Your task to perform on an android device: Go to Yahoo.com Image 0: 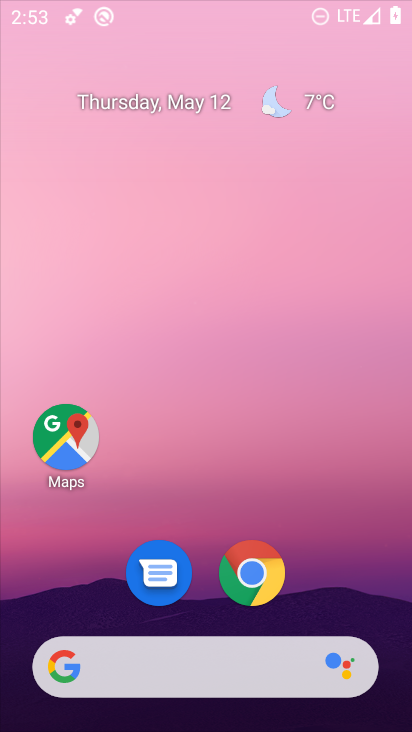
Step 0: drag from (261, 98) to (408, 121)
Your task to perform on an android device: Go to Yahoo.com Image 1: 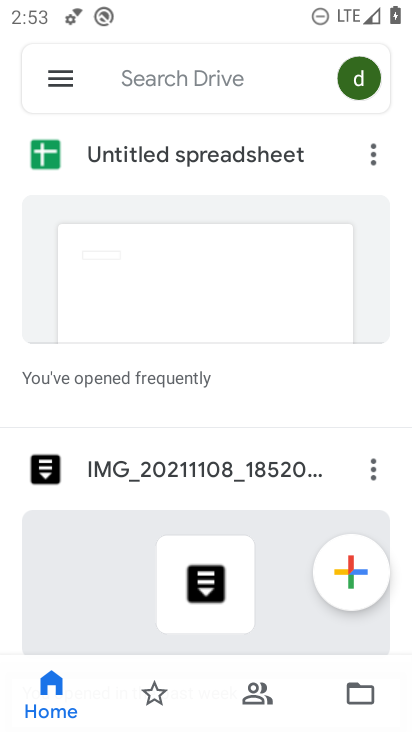
Step 1: press back button
Your task to perform on an android device: Go to Yahoo.com Image 2: 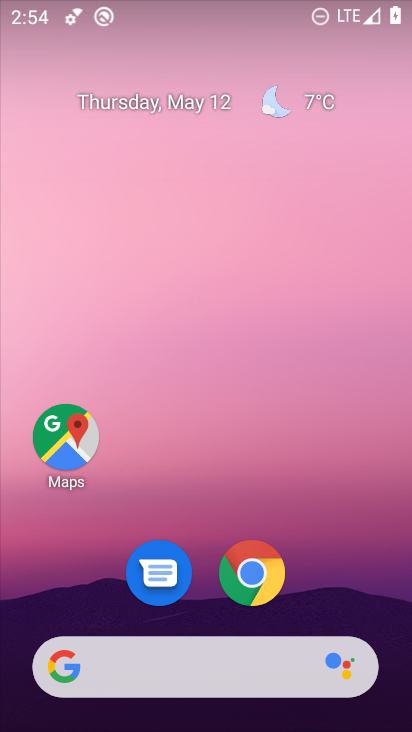
Step 2: drag from (352, 565) to (206, 55)
Your task to perform on an android device: Go to Yahoo.com Image 3: 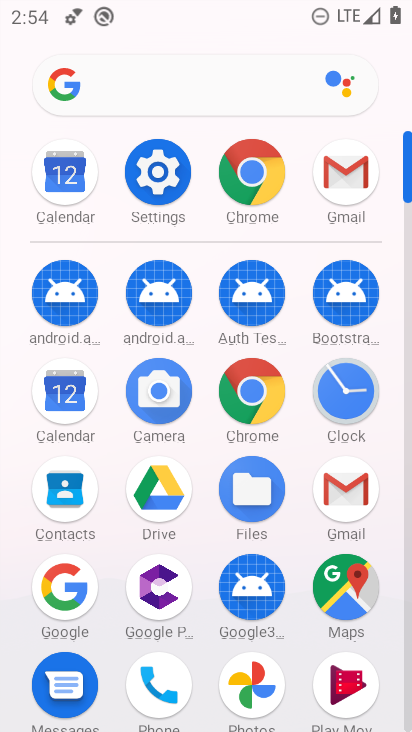
Step 3: click (257, 169)
Your task to perform on an android device: Go to Yahoo.com Image 4: 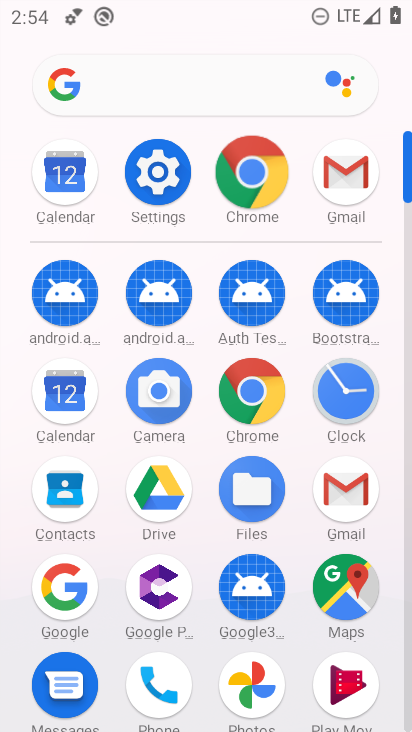
Step 4: click (257, 169)
Your task to perform on an android device: Go to Yahoo.com Image 5: 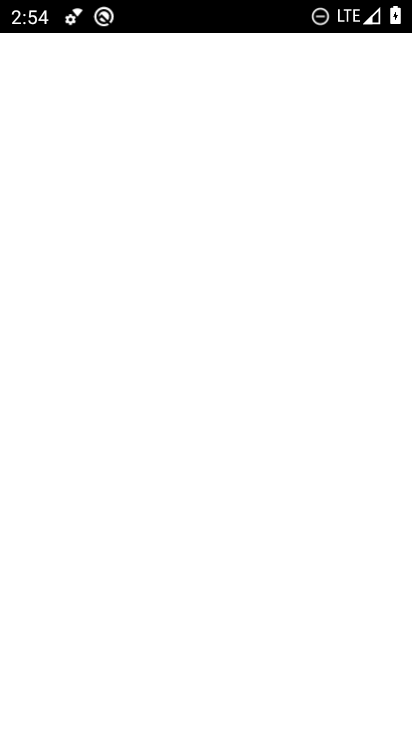
Step 5: click (256, 172)
Your task to perform on an android device: Go to Yahoo.com Image 6: 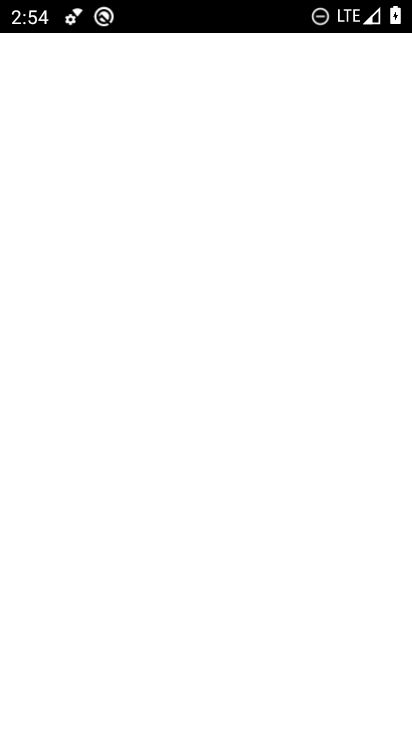
Step 6: click (256, 172)
Your task to perform on an android device: Go to Yahoo.com Image 7: 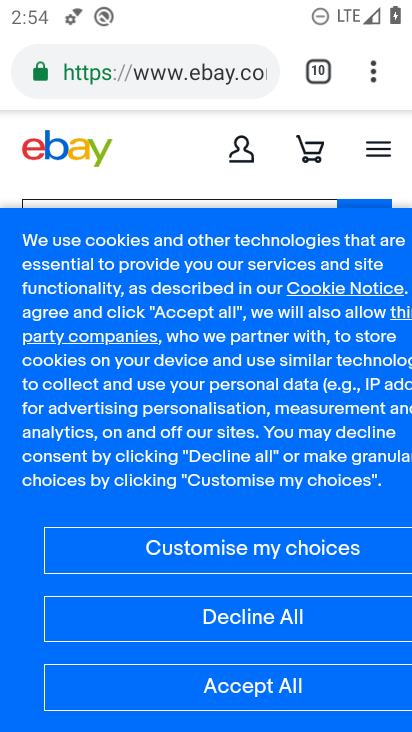
Step 7: drag from (361, 73) to (97, 585)
Your task to perform on an android device: Go to Yahoo.com Image 8: 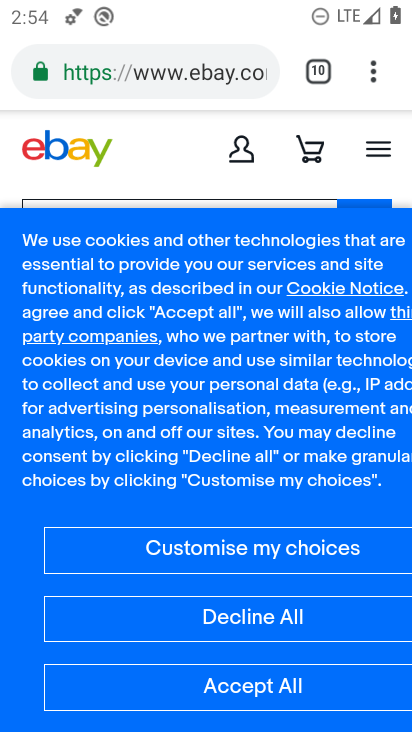
Step 8: click (106, 570)
Your task to perform on an android device: Go to Yahoo.com Image 9: 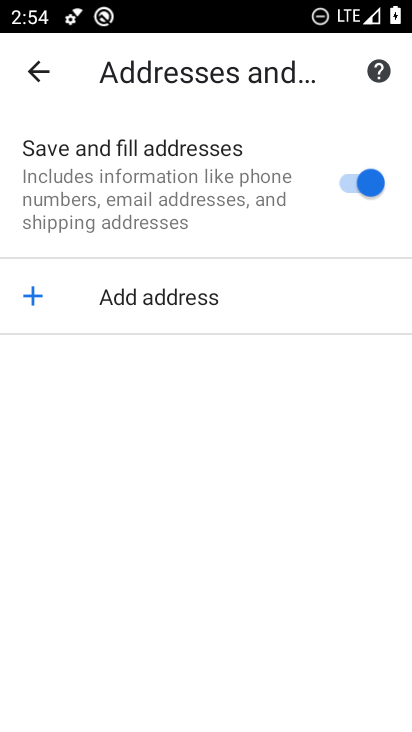
Step 9: click (24, 71)
Your task to perform on an android device: Go to Yahoo.com Image 10: 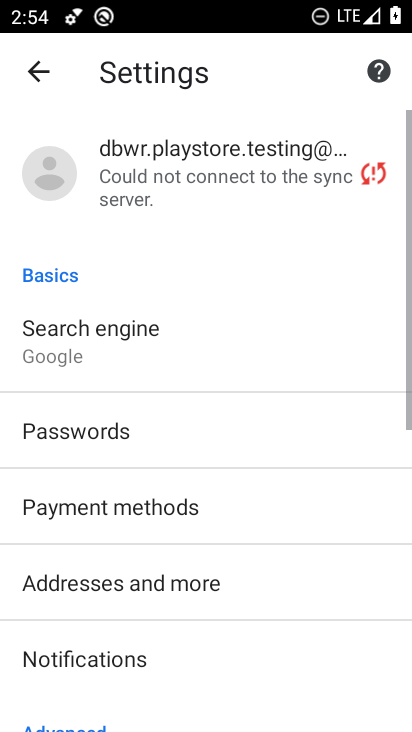
Step 10: drag from (119, 603) to (148, 231)
Your task to perform on an android device: Go to Yahoo.com Image 11: 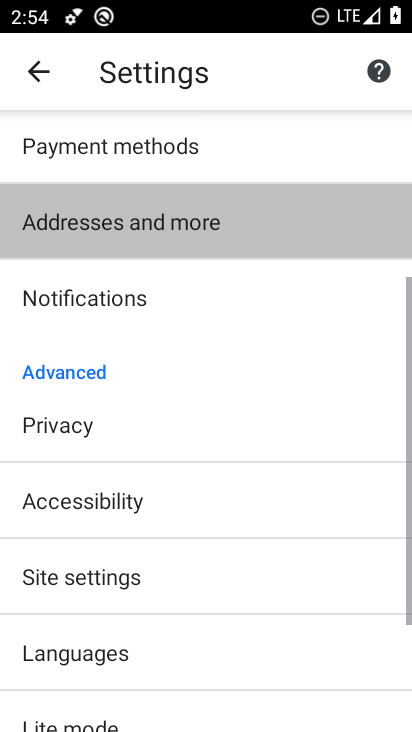
Step 11: drag from (191, 509) to (250, 177)
Your task to perform on an android device: Go to Yahoo.com Image 12: 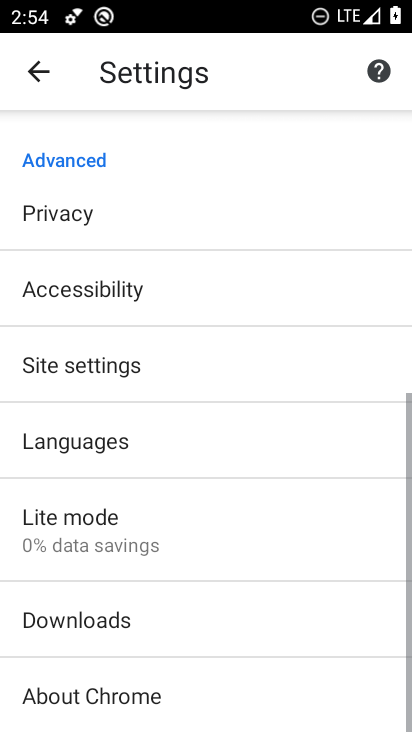
Step 12: drag from (178, 442) to (204, 214)
Your task to perform on an android device: Go to Yahoo.com Image 13: 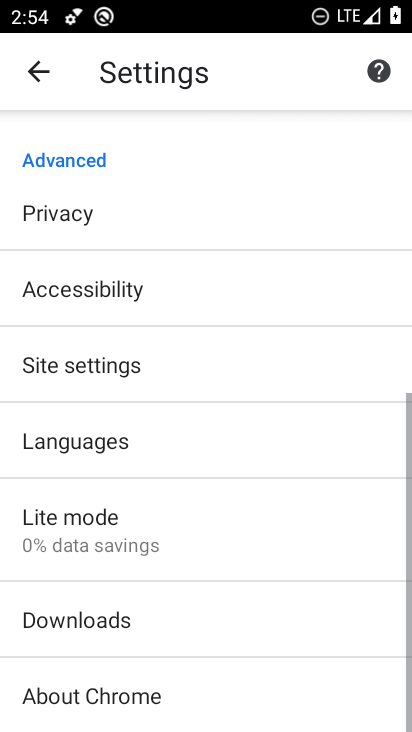
Step 13: click (28, 72)
Your task to perform on an android device: Go to Yahoo.com Image 14: 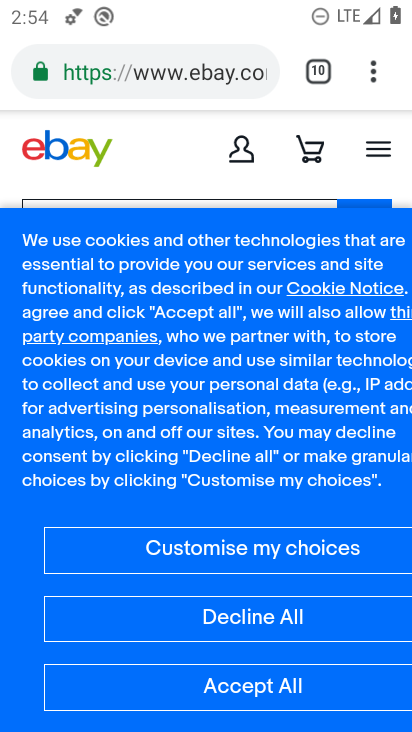
Step 14: drag from (364, 73) to (101, 146)
Your task to perform on an android device: Go to Yahoo.com Image 15: 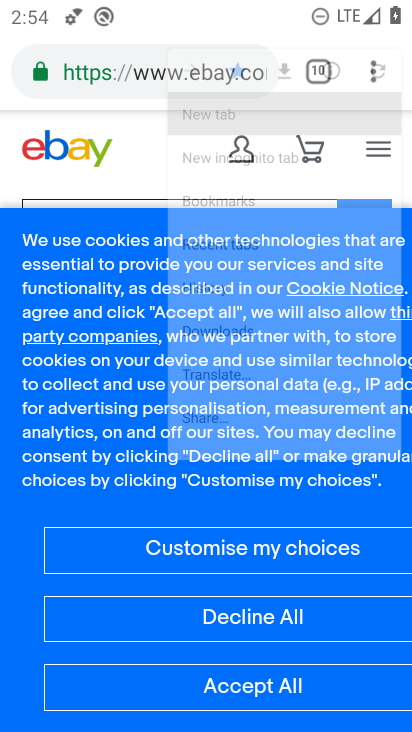
Step 15: click (102, 146)
Your task to perform on an android device: Go to Yahoo.com Image 16: 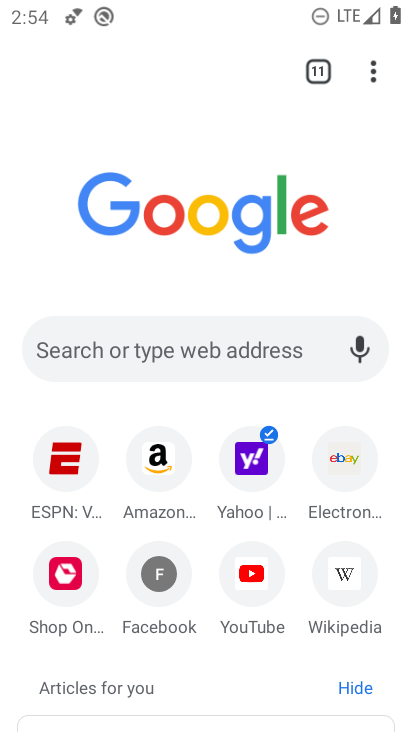
Step 16: drag from (255, 650) to (220, 279)
Your task to perform on an android device: Go to Yahoo.com Image 17: 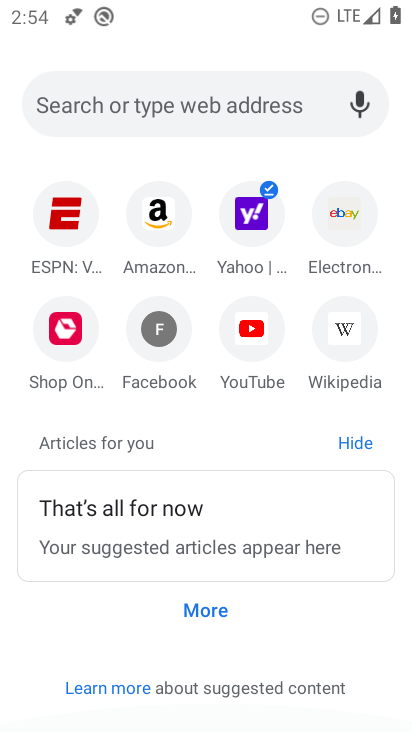
Step 17: drag from (208, 484) to (204, 145)
Your task to perform on an android device: Go to Yahoo.com Image 18: 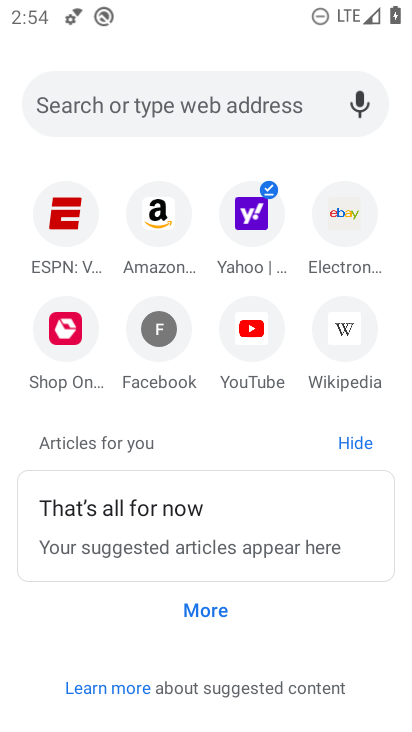
Step 18: click (250, 232)
Your task to perform on an android device: Go to Yahoo.com Image 19: 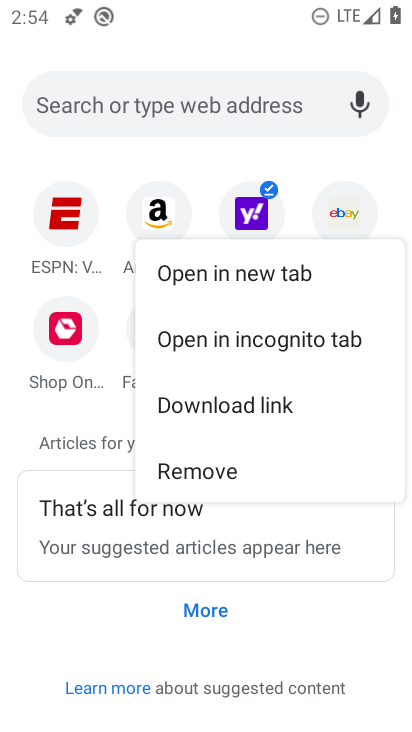
Step 19: click (250, 232)
Your task to perform on an android device: Go to Yahoo.com Image 20: 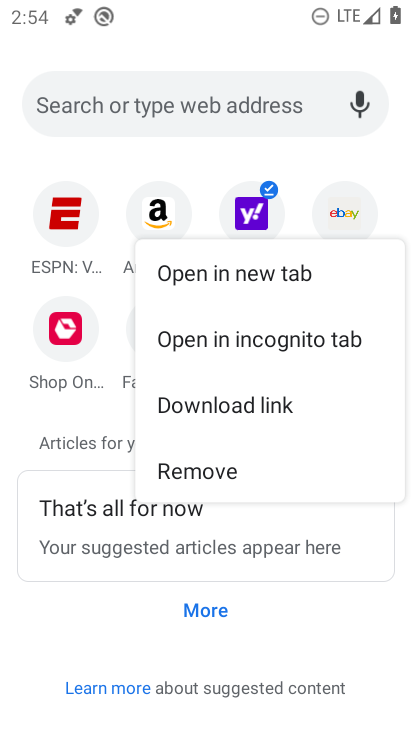
Step 20: click (264, 212)
Your task to perform on an android device: Go to Yahoo.com Image 21: 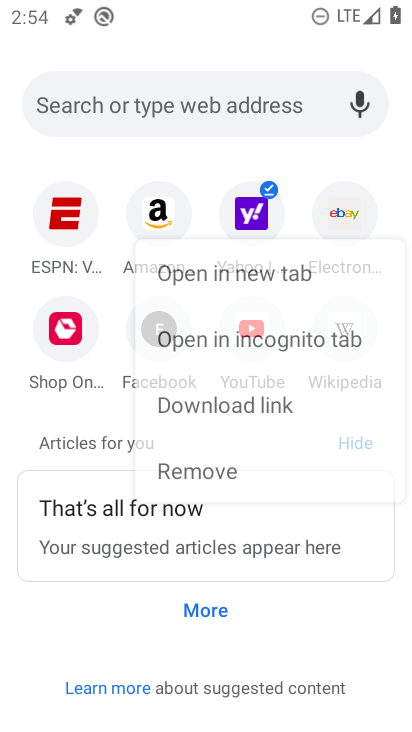
Step 21: click (259, 214)
Your task to perform on an android device: Go to Yahoo.com Image 22: 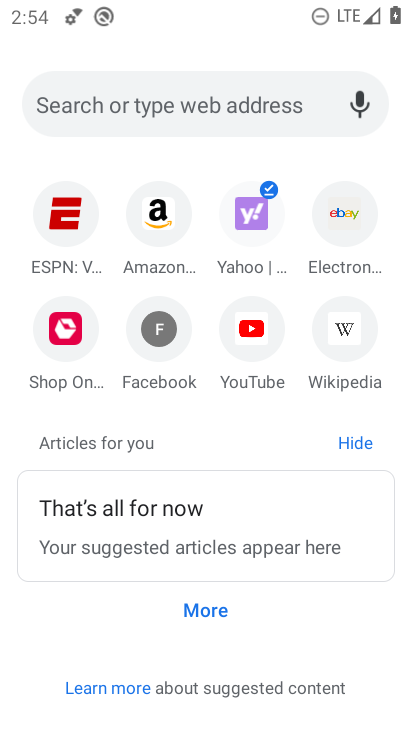
Step 22: click (259, 214)
Your task to perform on an android device: Go to Yahoo.com Image 23: 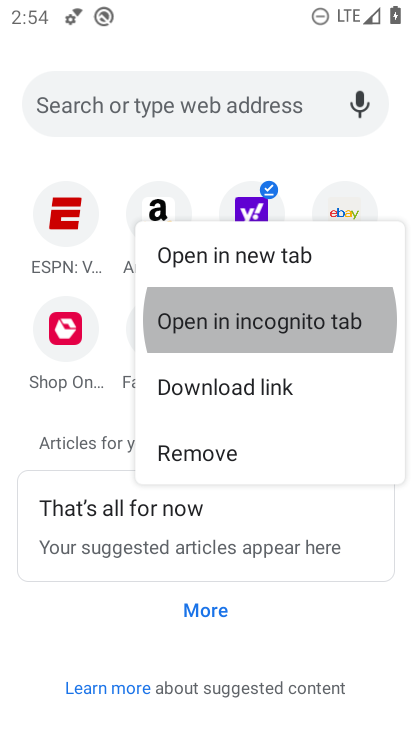
Step 23: click (258, 215)
Your task to perform on an android device: Go to Yahoo.com Image 24: 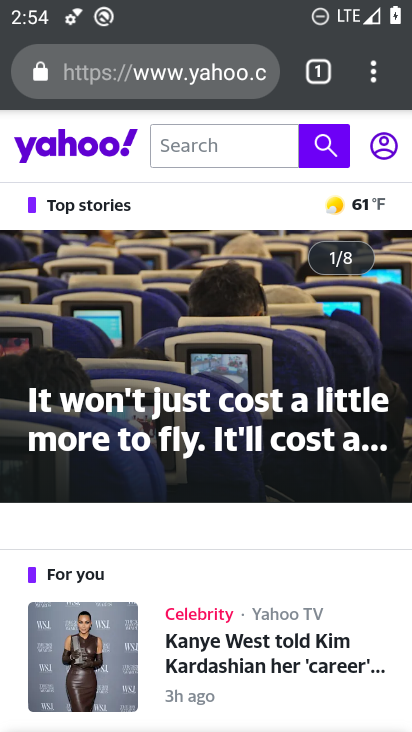
Step 24: task complete